Your task to perform on an android device: turn vacation reply on in the gmail app Image 0: 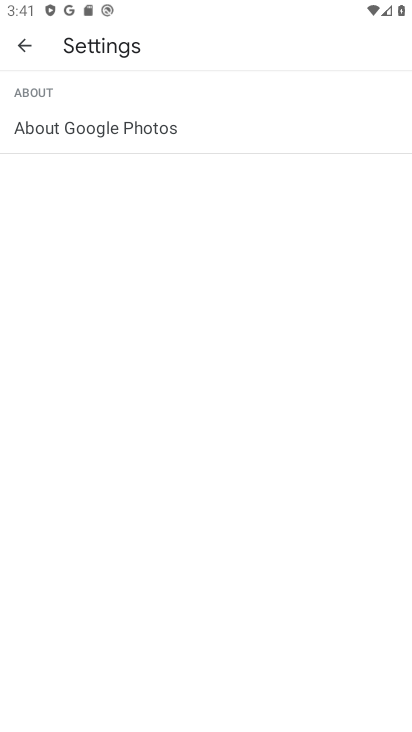
Step 0: press home button
Your task to perform on an android device: turn vacation reply on in the gmail app Image 1: 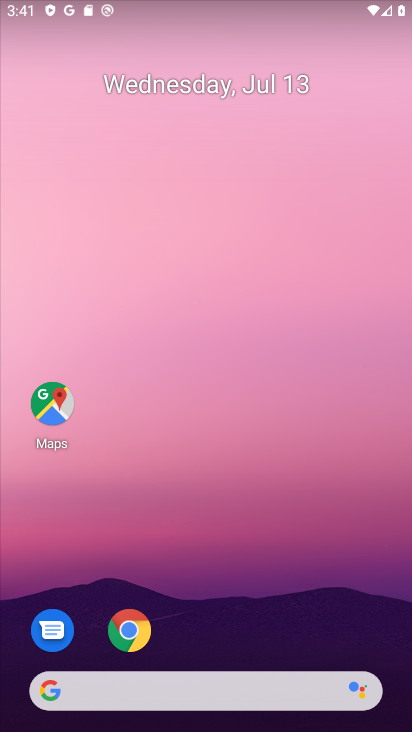
Step 1: drag from (177, 647) to (181, 114)
Your task to perform on an android device: turn vacation reply on in the gmail app Image 2: 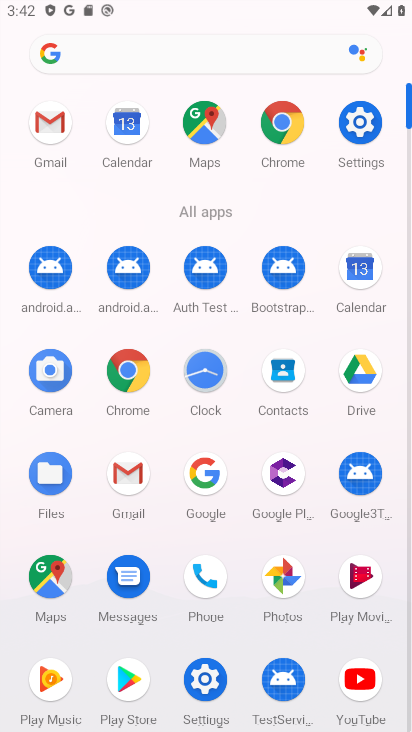
Step 2: click (49, 125)
Your task to perform on an android device: turn vacation reply on in the gmail app Image 3: 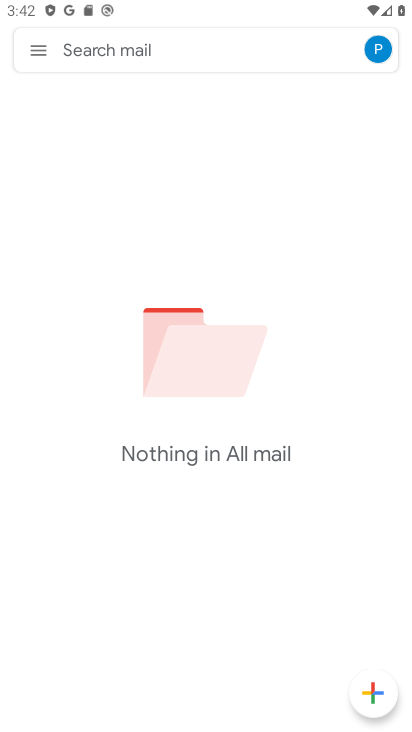
Step 3: click (41, 51)
Your task to perform on an android device: turn vacation reply on in the gmail app Image 4: 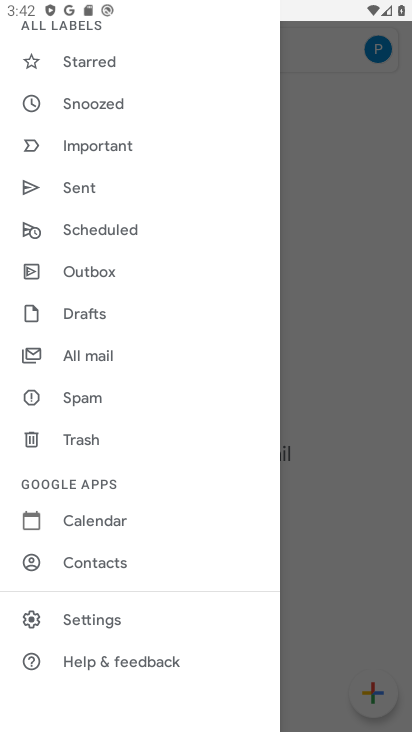
Step 4: click (83, 625)
Your task to perform on an android device: turn vacation reply on in the gmail app Image 5: 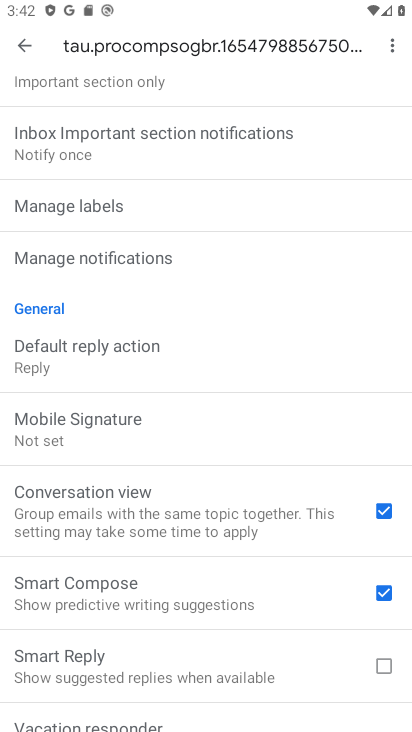
Step 5: drag from (214, 574) to (216, 390)
Your task to perform on an android device: turn vacation reply on in the gmail app Image 6: 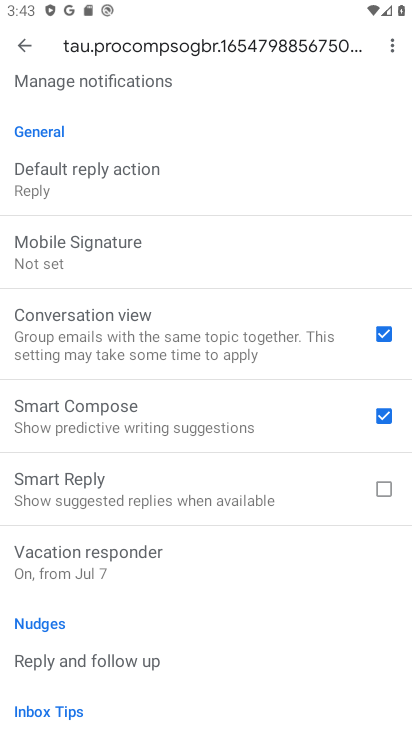
Step 6: click (139, 568)
Your task to perform on an android device: turn vacation reply on in the gmail app Image 7: 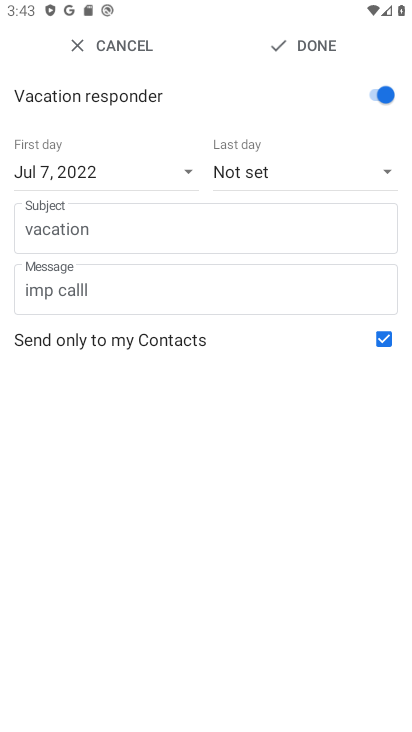
Step 7: task complete